Your task to perform on an android device: Go to Amazon Image 0: 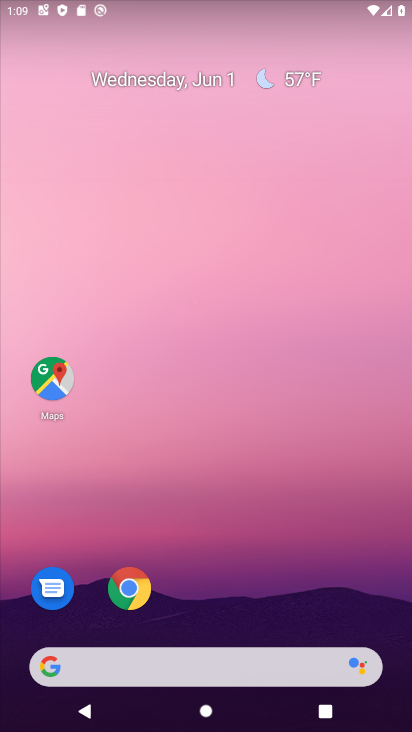
Step 0: click (124, 602)
Your task to perform on an android device: Go to Amazon Image 1: 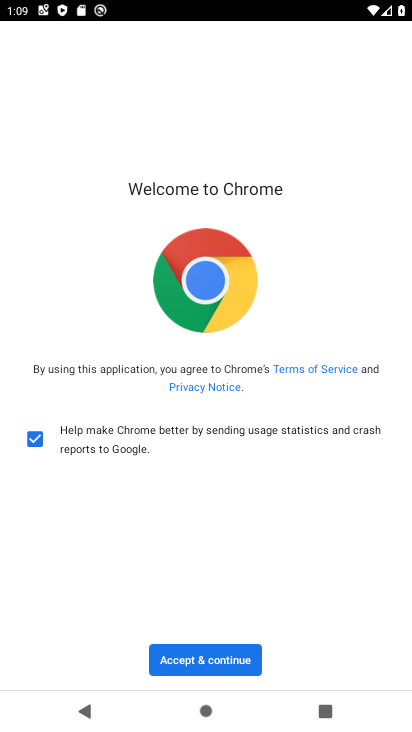
Step 1: click (241, 660)
Your task to perform on an android device: Go to Amazon Image 2: 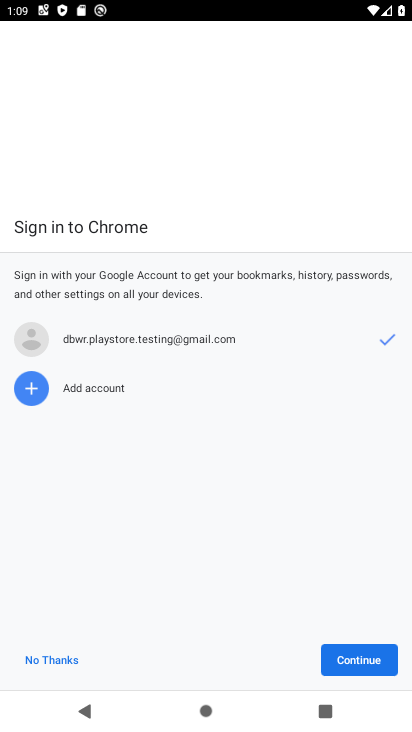
Step 2: click (376, 646)
Your task to perform on an android device: Go to Amazon Image 3: 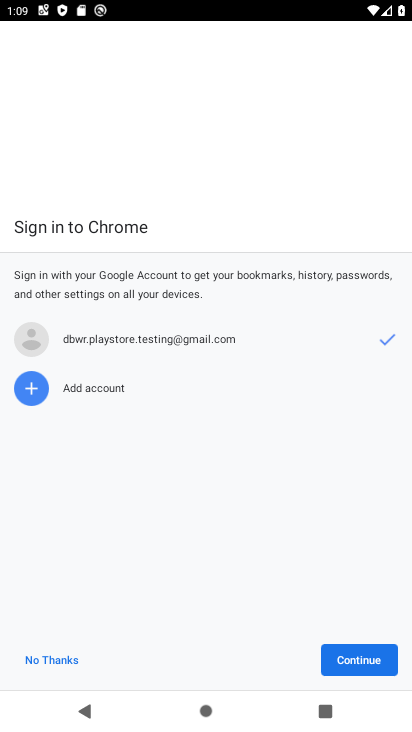
Step 3: click (376, 646)
Your task to perform on an android device: Go to Amazon Image 4: 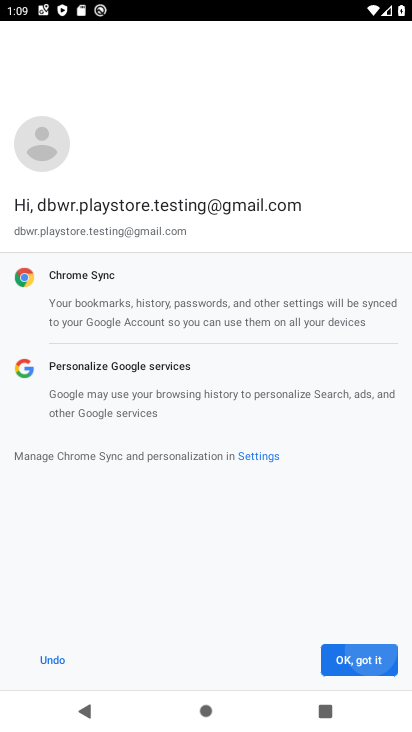
Step 4: click (376, 646)
Your task to perform on an android device: Go to Amazon Image 5: 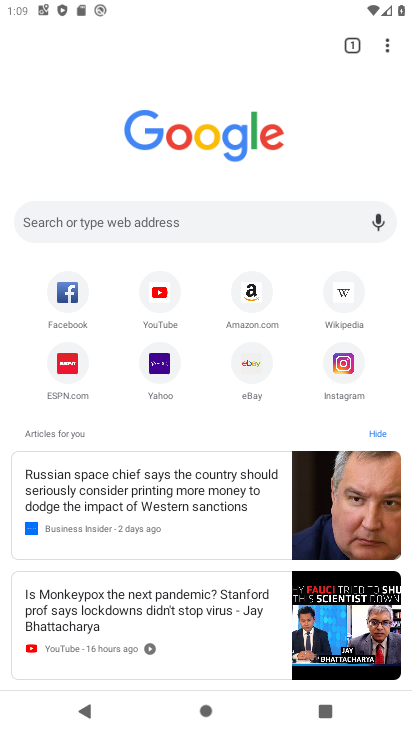
Step 5: click (257, 280)
Your task to perform on an android device: Go to Amazon Image 6: 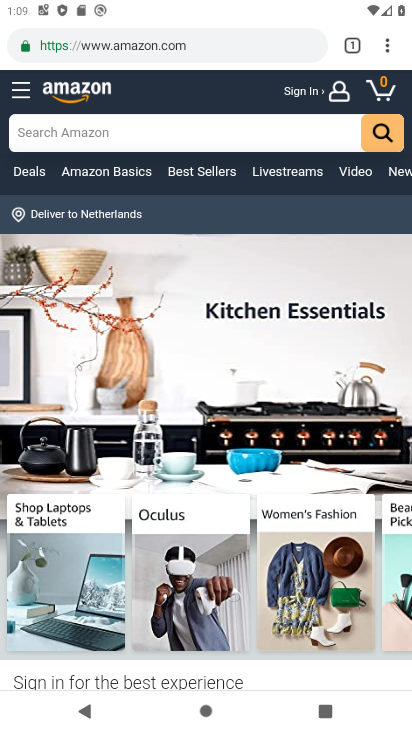
Step 6: task complete